Your task to perform on an android device: Add jbl flip 4 to the cart on ebay Image 0: 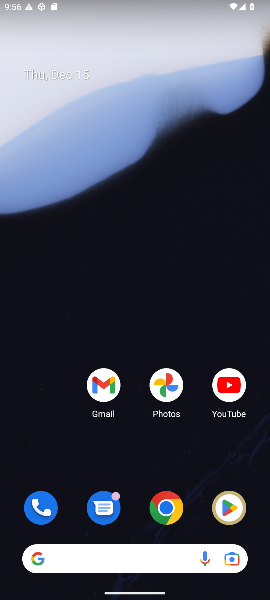
Step 0: drag from (142, 541) to (163, 105)
Your task to perform on an android device: Add jbl flip 4 to the cart on ebay Image 1: 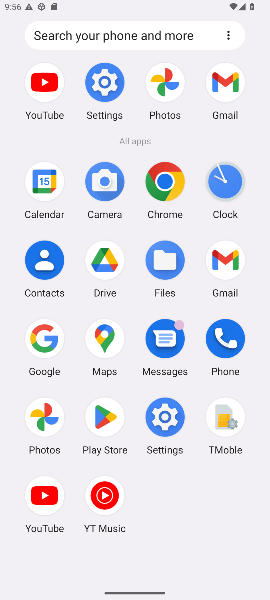
Step 1: click (46, 337)
Your task to perform on an android device: Add jbl flip 4 to the cart on ebay Image 2: 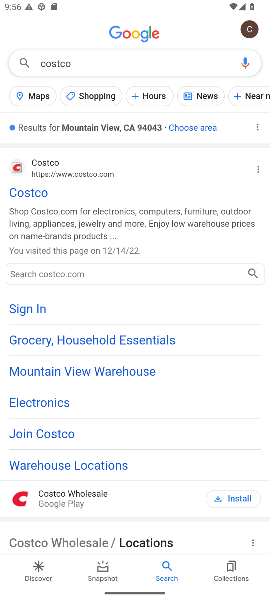
Step 2: click (52, 58)
Your task to perform on an android device: Add jbl flip 4 to the cart on ebay Image 3: 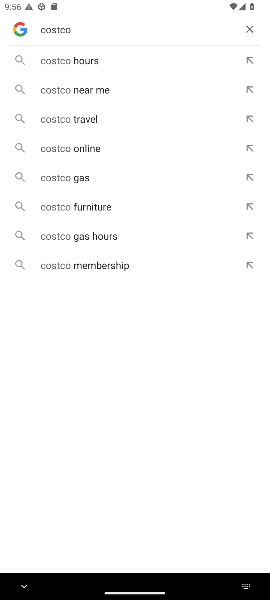
Step 3: click (247, 34)
Your task to perform on an android device: Add jbl flip 4 to the cart on ebay Image 4: 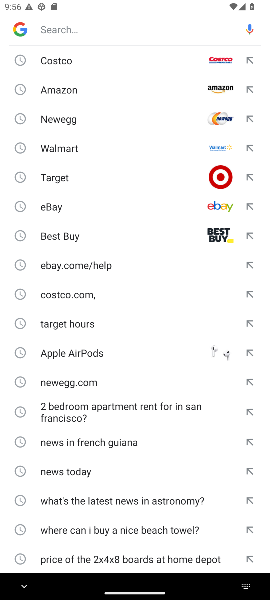
Step 4: click (58, 206)
Your task to perform on an android device: Add jbl flip 4 to the cart on ebay Image 5: 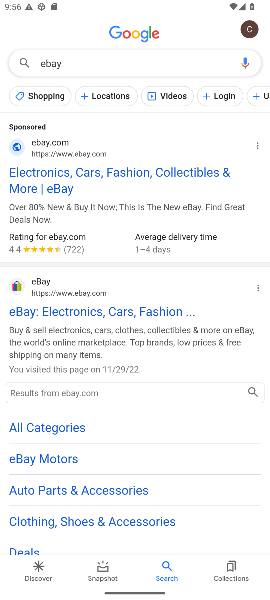
Step 5: click (67, 310)
Your task to perform on an android device: Add jbl flip 4 to the cart on ebay Image 6: 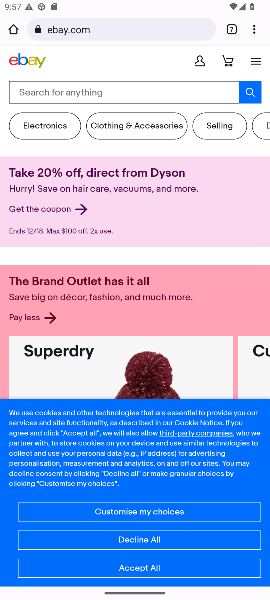
Step 6: click (63, 91)
Your task to perform on an android device: Add jbl flip 4 to the cart on ebay Image 7: 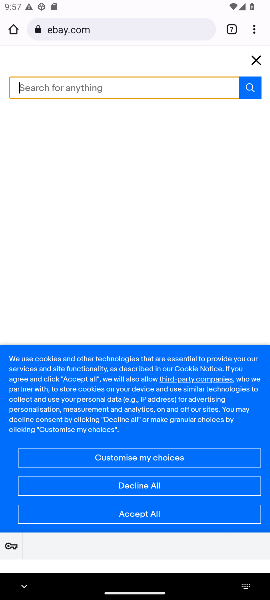
Step 7: type "jbl flip 4"
Your task to perform on an android device: Add jbl flip 4 to the cart on ebay Image 8: 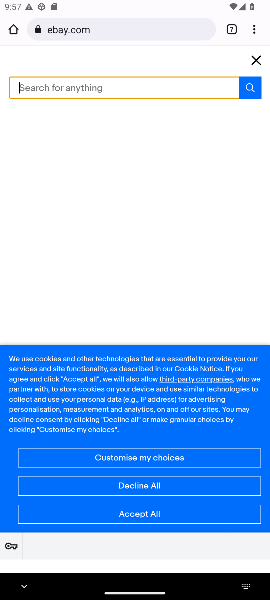
Step 8: click (249, 86)
Your task to perform on an android device: Add jbl flip 4 to the cart on ebay Image 9: 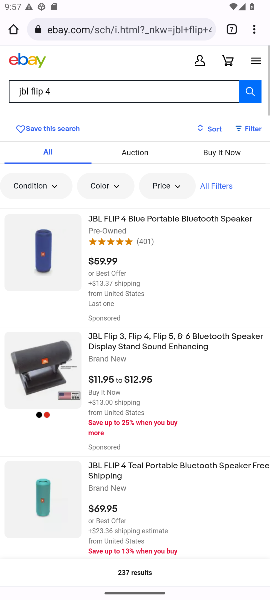
Step 9: click (111, 228)
Your task to perform on an android device: Add jbl flip 4 to the cart on ebay Image 10: 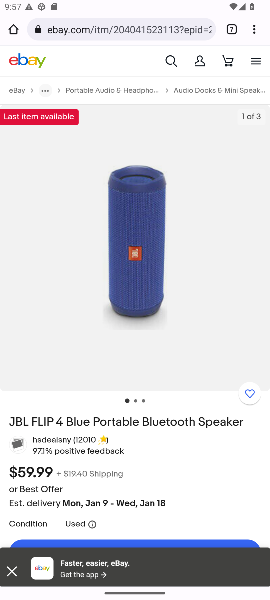
Step 10: click (13, 577)
Your task to perform on an android device: Add jbl flip 4 to the cart on ebay Image 11: 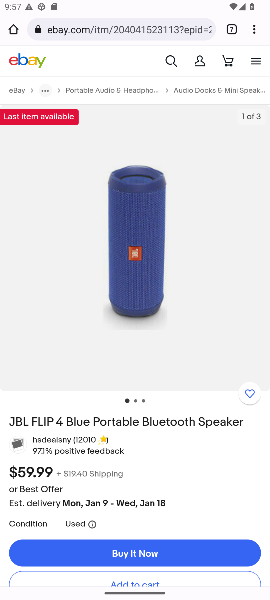
Step 11: drag from (181, 579) to (216, 389)
Your task to perform on an android device: Add jbl flip 4 to the cart on ebay Image 12: 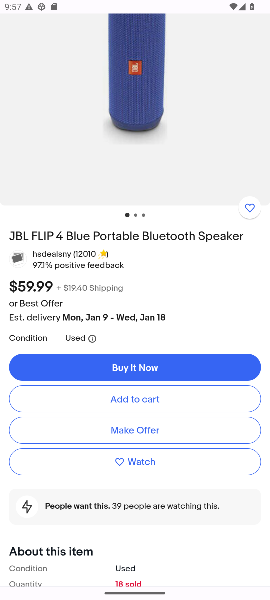
Step 12: click (129, 397)
Your task to perform on an android device: Add jbl flip 4 to the cart on ebay Image 13: 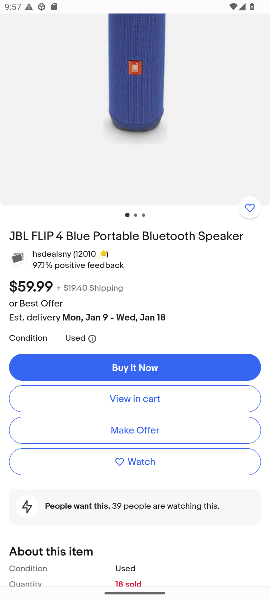
Step 13: click (136, 400)
Your task to perform on an android device: Add jbl flip 4 to the cart on ebay Image 14: 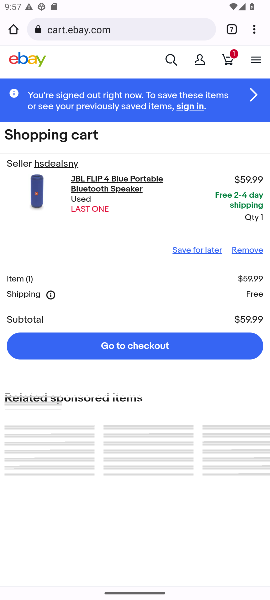
Step 14: task complete